Your task to perform on an android device: Check the news Image 0: 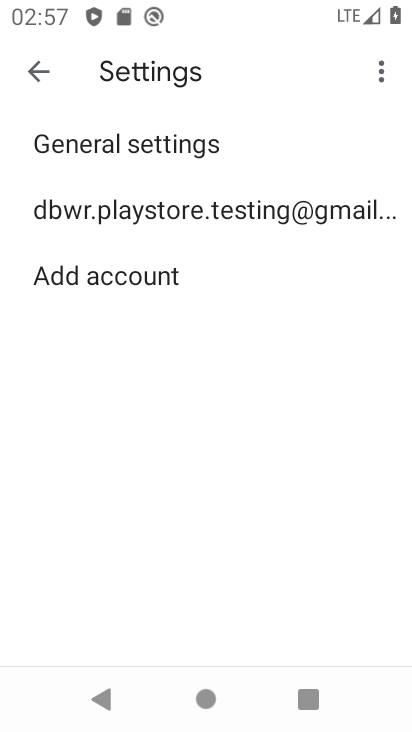
Step 0: press home button
Your task to perform on an android device: Check the news Image 1: 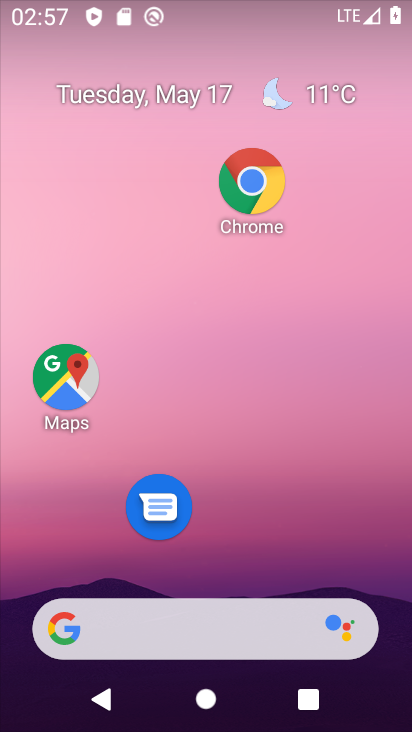
Step 1: click (221, 641)
Your task to perform on an android device: Check the news Image 2: 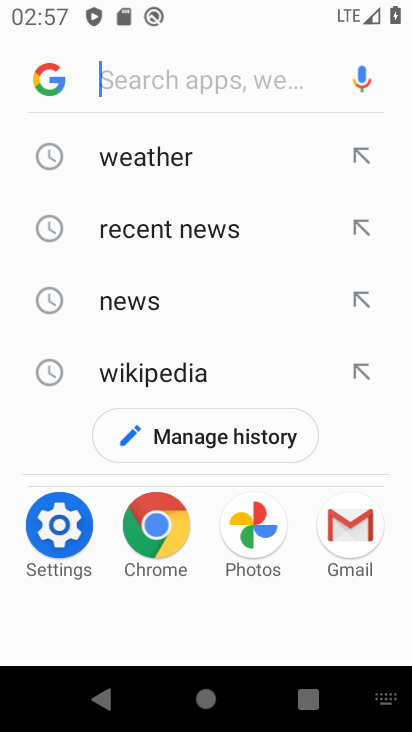
Step 2: click (132, 243)
Your task to perform on an android device: Check the news Image 3: 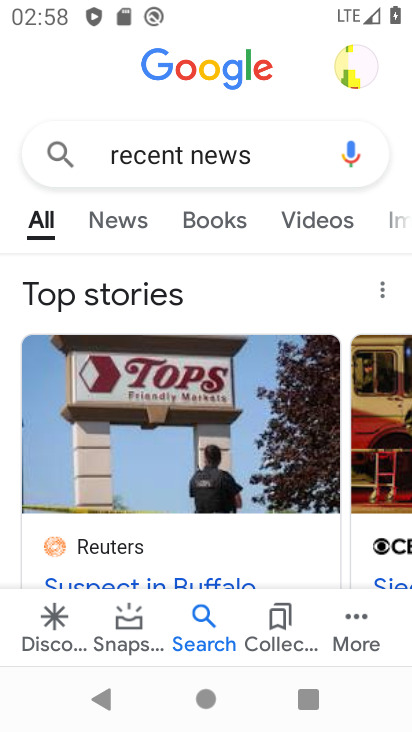
Step 3: task complete